Your task to perform on an android device: Open Google Maps Image 0: 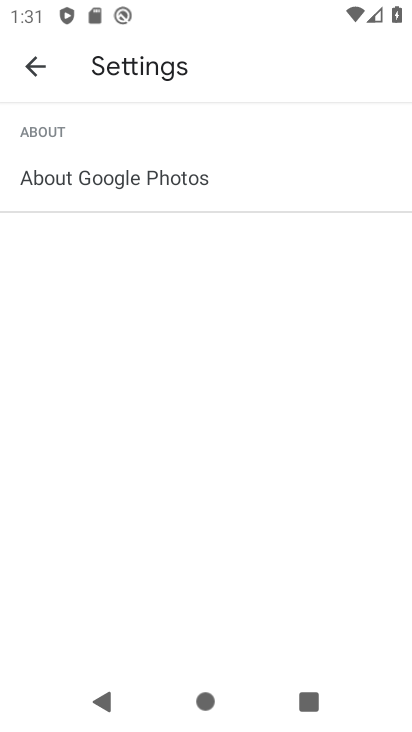
Step 0: press home button
Your task to perform on an android device: Open Google Maps Image 1: 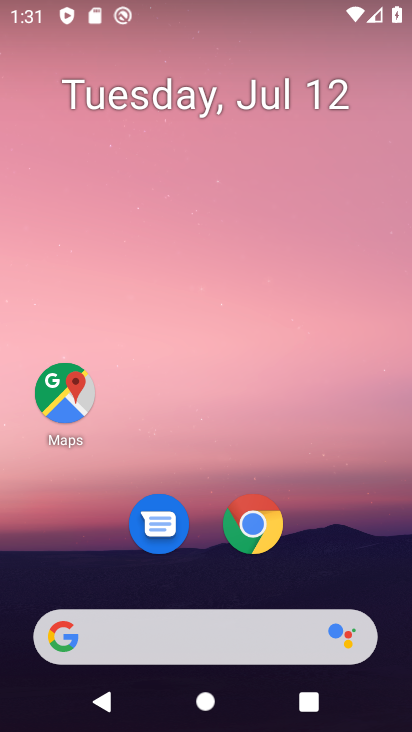
Step 1: click (52, 398)
Your task to perform on an android device: Open Google Maps Image 2: 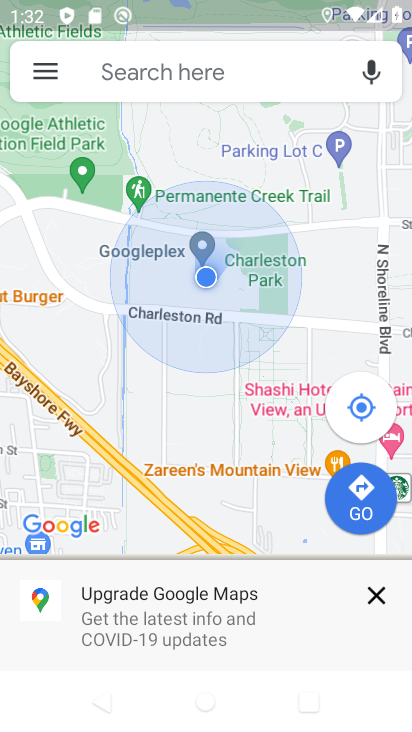
Step 2: task complete